Your task to perform on an android device: Open sound settings Image 0: 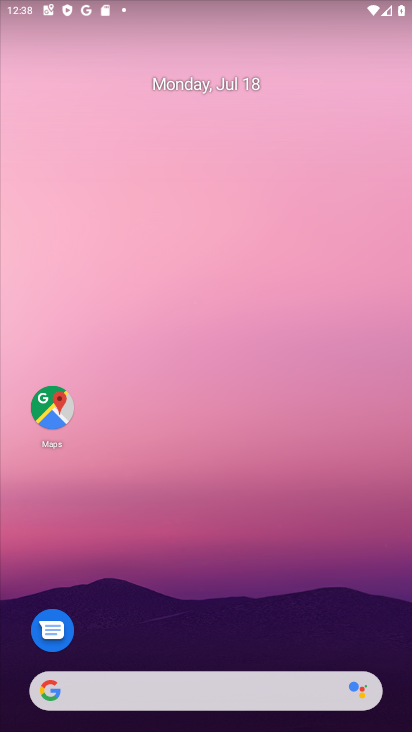
Step 0: drag from (220, 500) to (242, 110)
Your task to perform on an android device: Open sound settings Image 1: 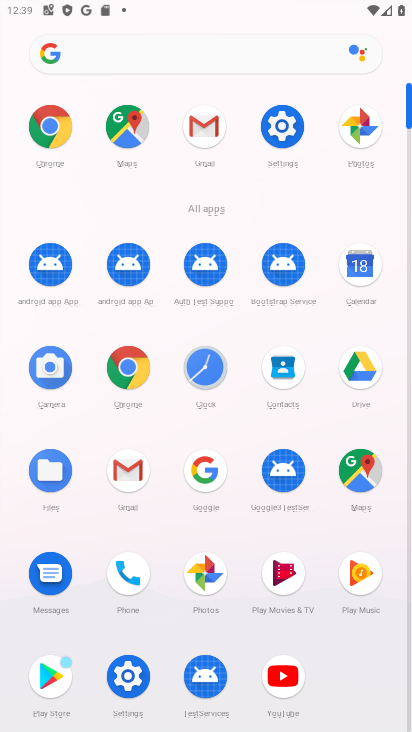
Step 1: click (288, 109)
Your task to perform on an android device: Open sound settings Image 2: 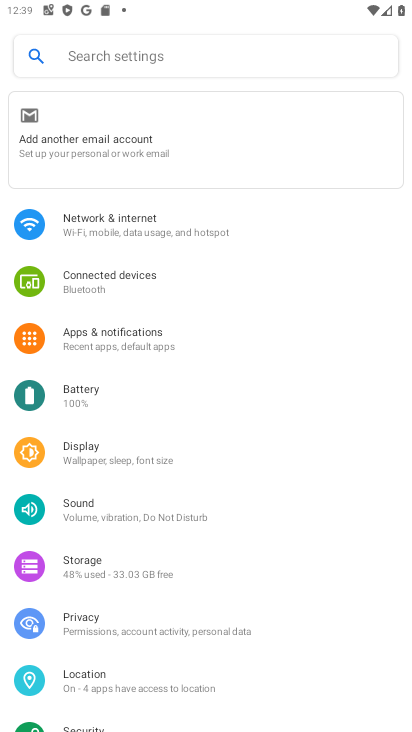
Step 2: click (118, 508)
Your task to perform on an android device: Open sound settings Image 3: 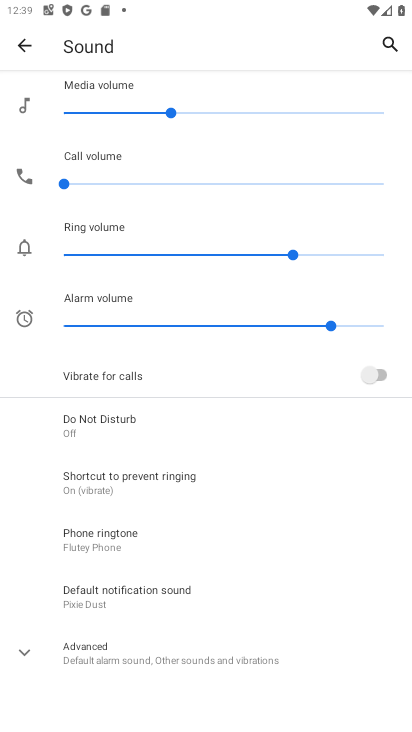
Step 3: task complete